Your task to perform on an android device: When is my next meeting? Image 0: 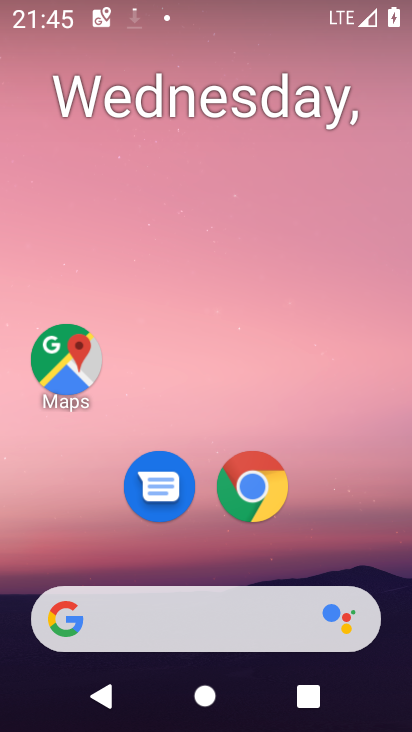
Step 0: drag from (112, 575) to (230, 64)
Your task to perform on an android device: When is my next meeting? Image 1: 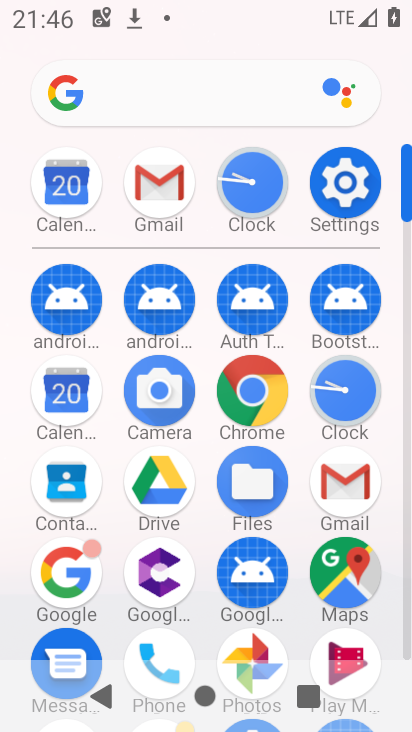
Step 1: click (62, 401)
Your task to perform on an android device: When is my next meeting? Image 2: 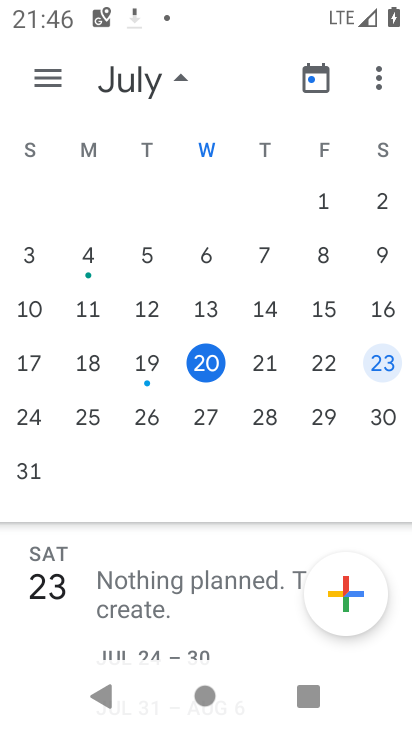
Step 2: task complete